Your task to perform on an android device: change the clock display to show seconds Image 0: 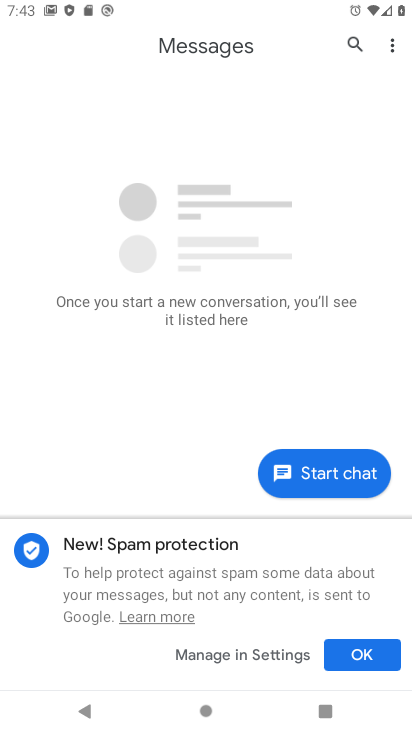
Step 0: press home button
Your task to perform on an android device: change the clock display to show seconds Image 1: 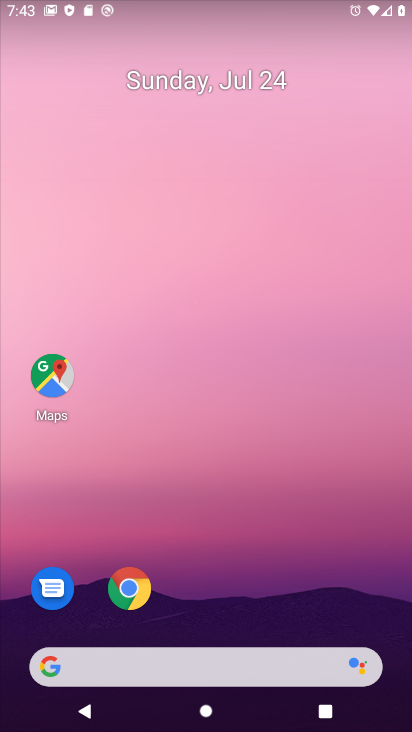
Step 1: click (286, 37)
Your task to perform on an android device: change the clock display to show seconds Image 2: 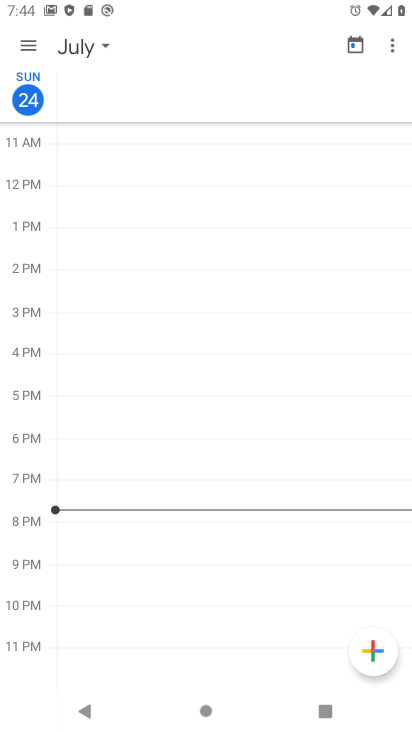
Step 2: press home button
Your task to perform on an android device: change the clock display to show seconds Image 3: 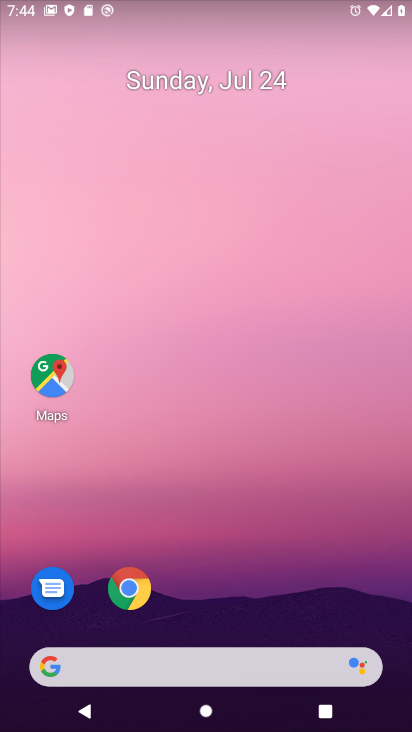
Step 3: drag from (268, 647) to (376, 116)
Your task to perform on an android device: change the clock display to show seconds Image 4: 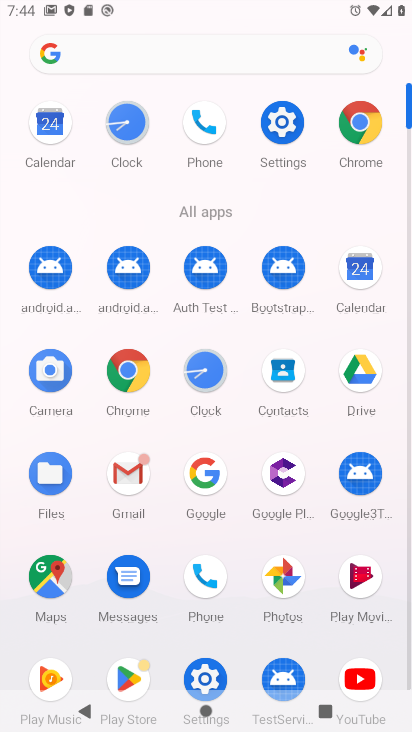
Step 4: click (185, 380)
Your task to perform on an android device: change the clock display to show seconds Image 5: 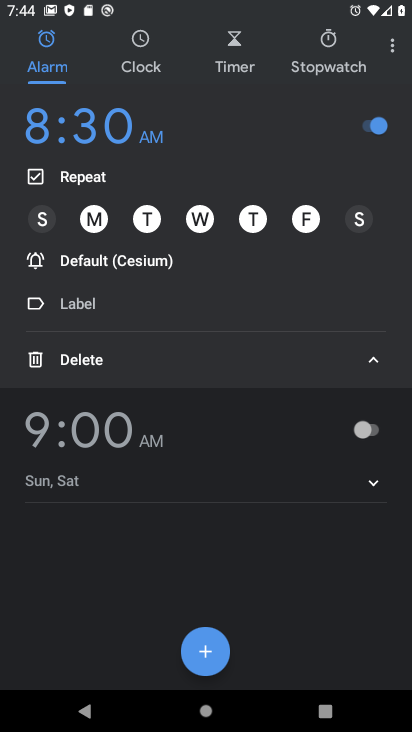
Step 5: click (396, 50)
Your task to perform on an android device: change the clock display to show seconds Image 6: 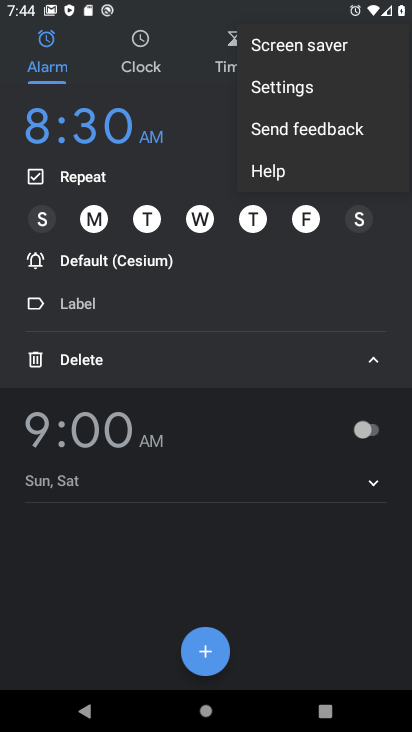
Step 6: click (289, 97)
Your task to perform on an android device: change the clock display to show seconds Image 7: 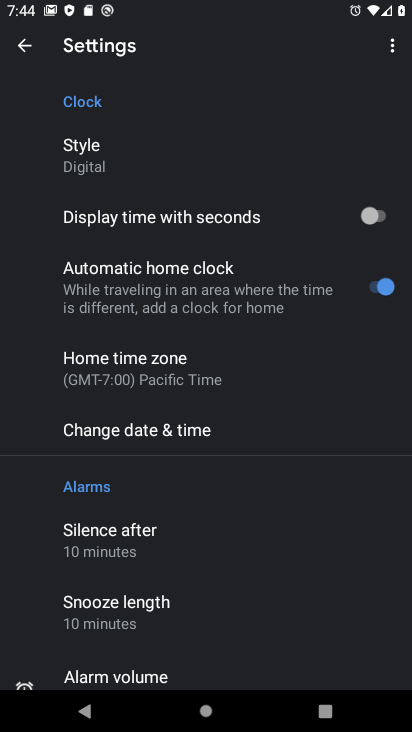
Step 7: click (374, 226)
Your task to perform on an android device: change the clock display to show seconds Image 8: 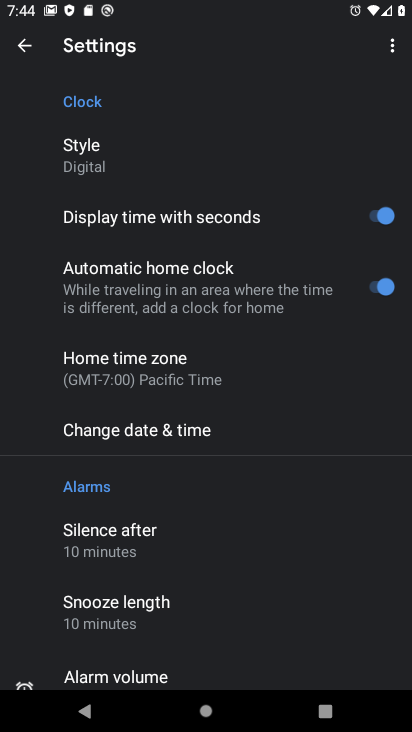
Step 8: task complete